Your task to perform on an android device: install app "Google Play Games" Image 0: 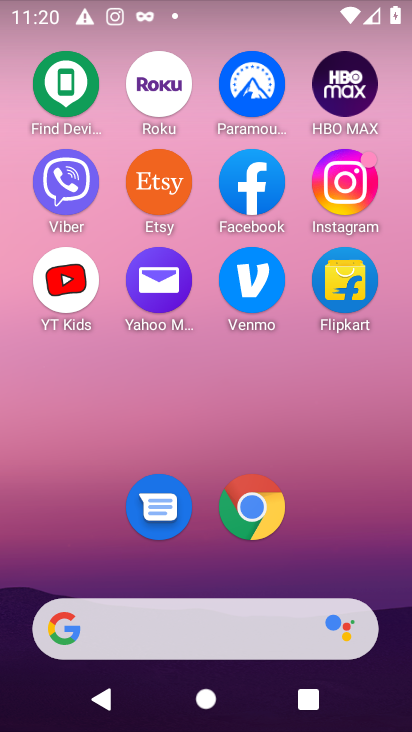
Step 0: press home button
Your task to perform on an android device: install app "Google Play Games" Image 1: 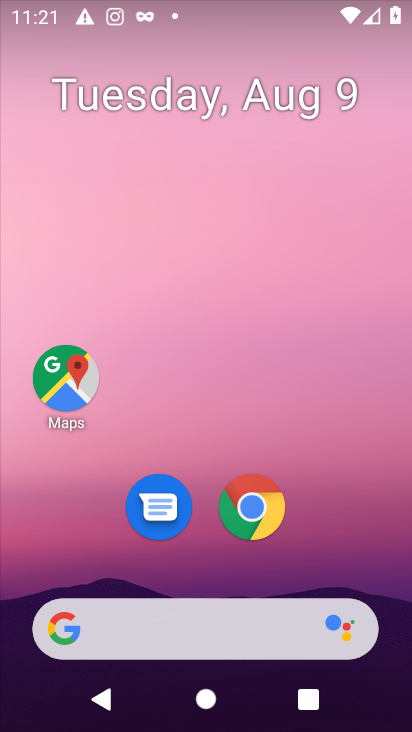
Step 1: drag from (211, 632) to (189, 212)
Your task to perform on an android device: install app "Google Play Games" Image 2: 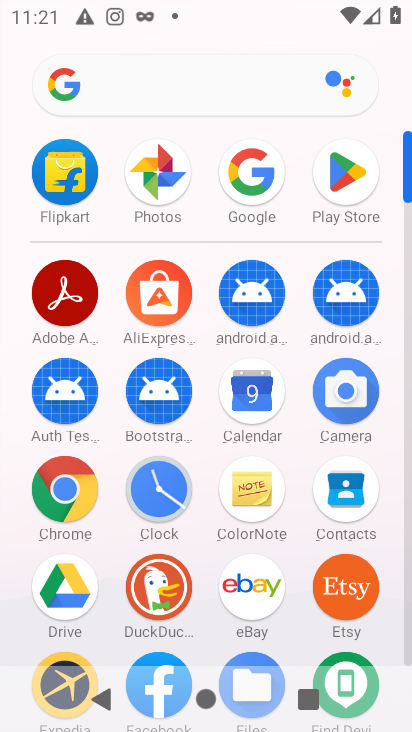
Step 2: click (347, 180)
Your task to perform on an android device: install app "Google Play Games" Image 3: 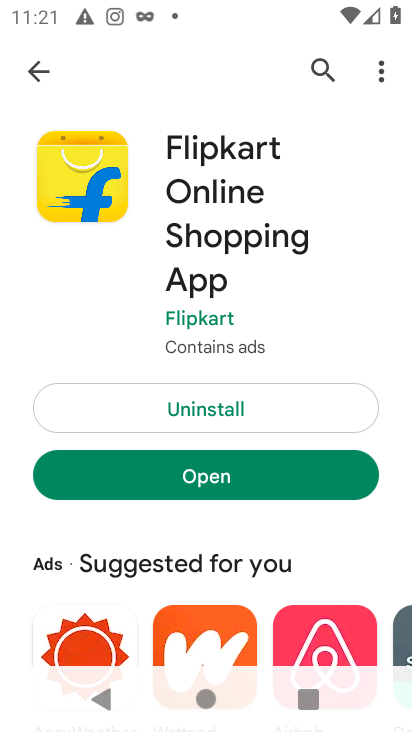
Step 3: click (328, 75)
Your task to perform on an android device: install app "Google Play Games" Image 4: 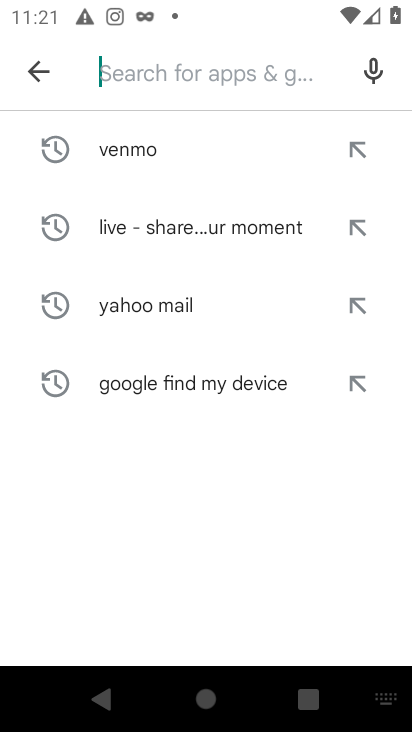
Step 4: type "Google Play Games"
Your task to perform on an android device: install app "Google Play Games" Image 5: 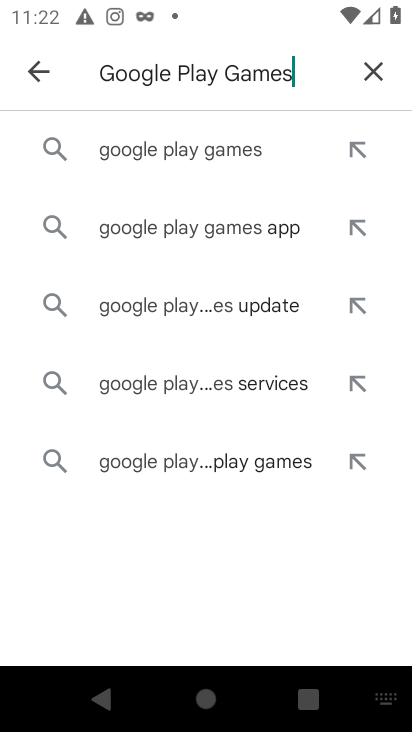
Step 5: click (222, 149)
Your task to perform on an android device: install app "Google Play Games" Image 6: 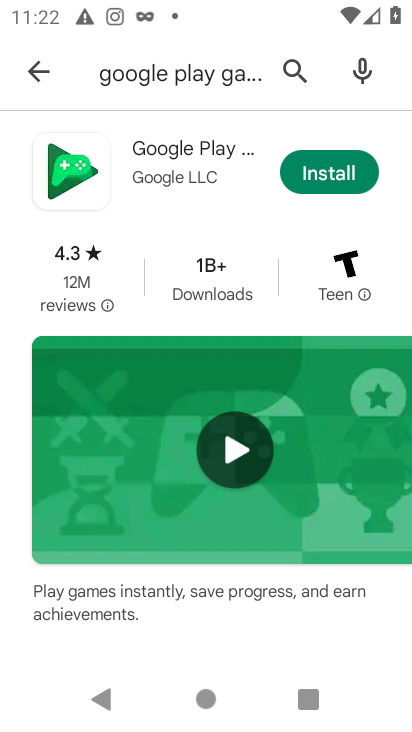
Step 6: click (331, 174)
Your task to perform on an android device: install app "Google Play Games" Image 7: 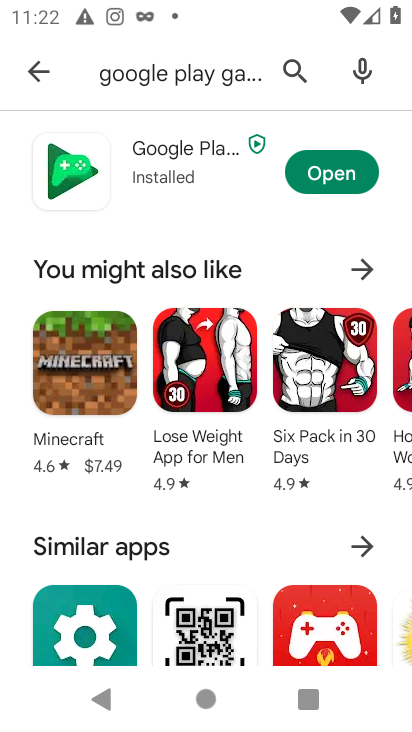
Step 7: task complete